Your task to perform on an android device: Show the shopping cart on amazon. Search for logitech g903 on amazon, select the first entry, and add it to the cart. Image 0: 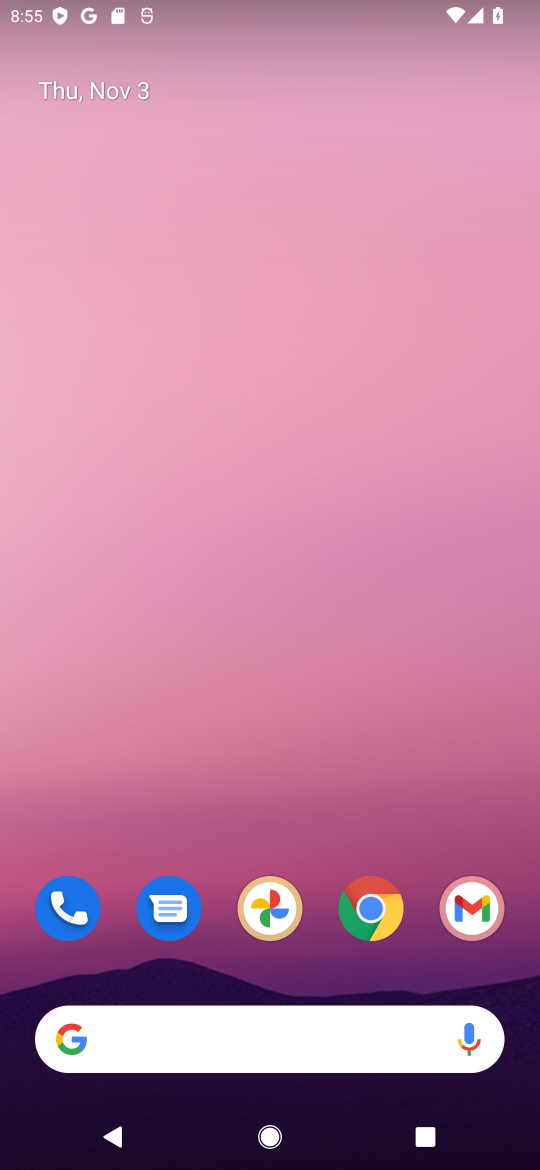
Step 0: click (360, 902)
Your task to perform on an android device: Show the shopping cart on amazon. Search for logitech g903 on amazon, select the first entry, and add it to the cart. Image 1: 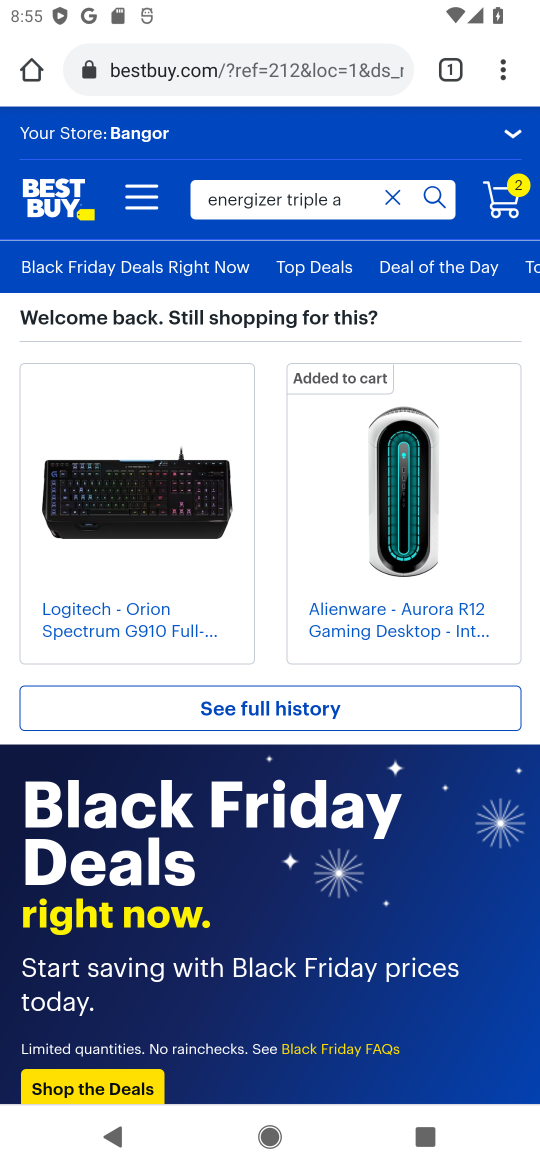
Step 1: click (282, 60)
Your task to perform on an android device: Show the shopping cart on amazon. Search for logitech g903 on amazon, select the first entry, and add it to the cart. Image 2: 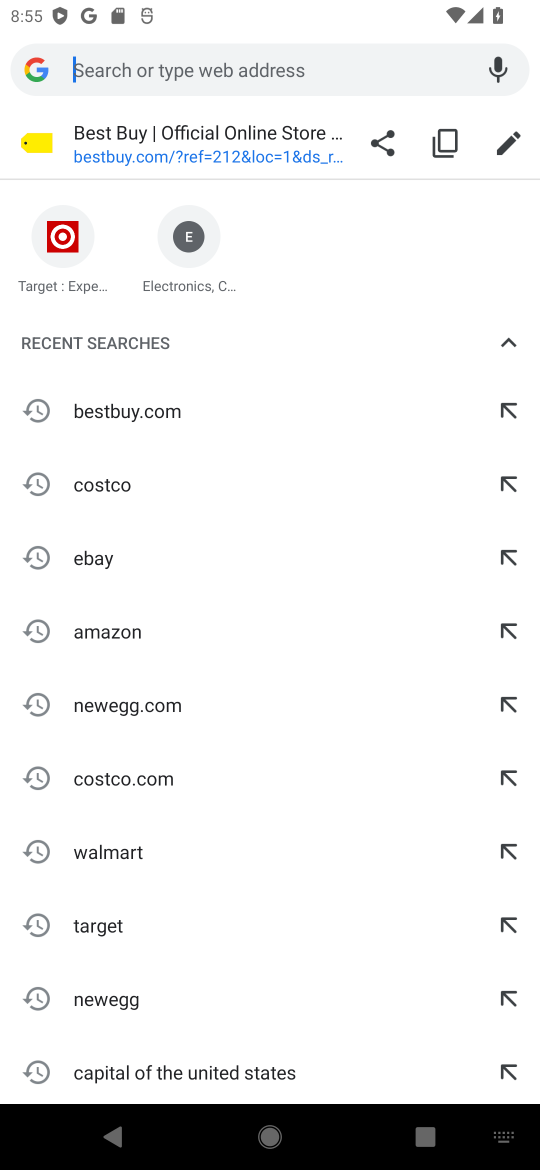
Step 2: click (136, 635)
Your task to perform on an android device: Show the shopping cart on amazon. Search for logitech g903 on amazon, select the first entry, and add it to the cart. Image 3: 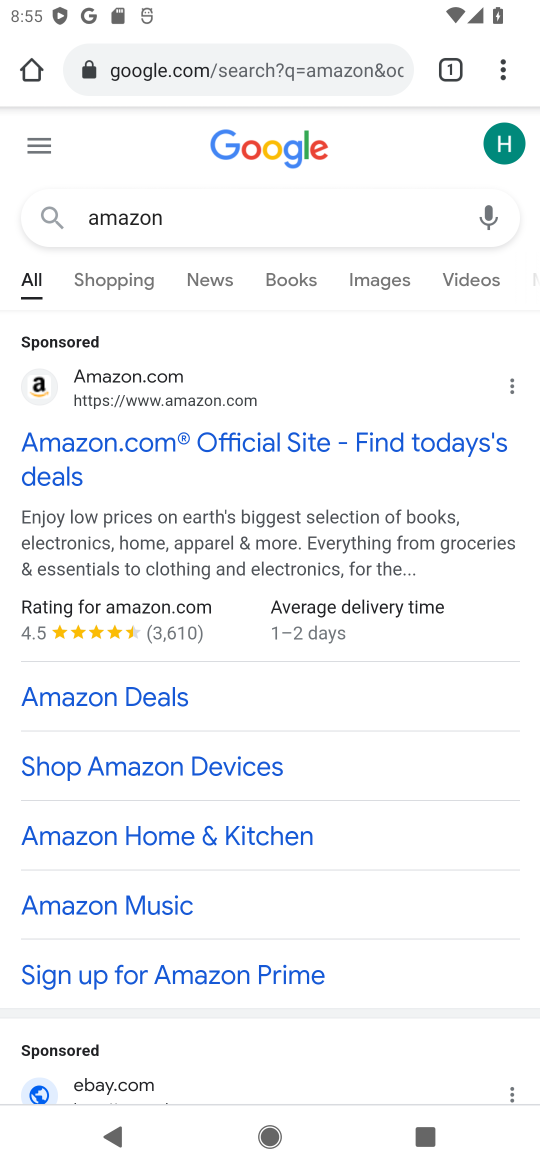
Step 3: click (115, 380)
Your task to perform on an android device: Show the shopping cart on amazon. Search for logitech g903 on amazon, select the first entry, and add it to the cart. Image 4: 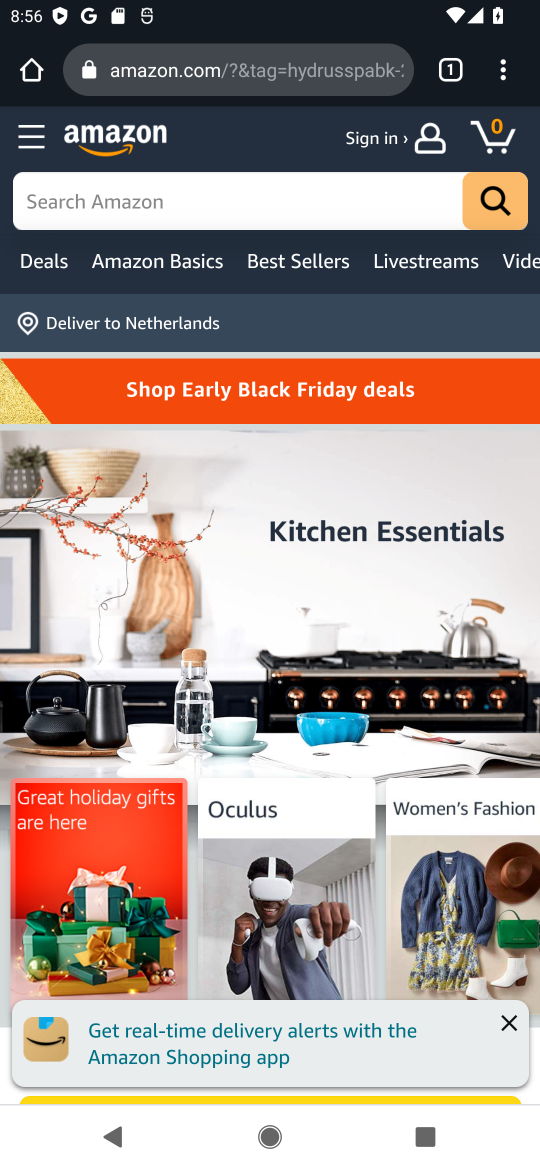
Step 4: click (495, 131)
Your task to perform on an android device: Show the shopping cart on amazon. Search for logitech g903 on amazon, select the first entry, and add it to the cart. Image 5: 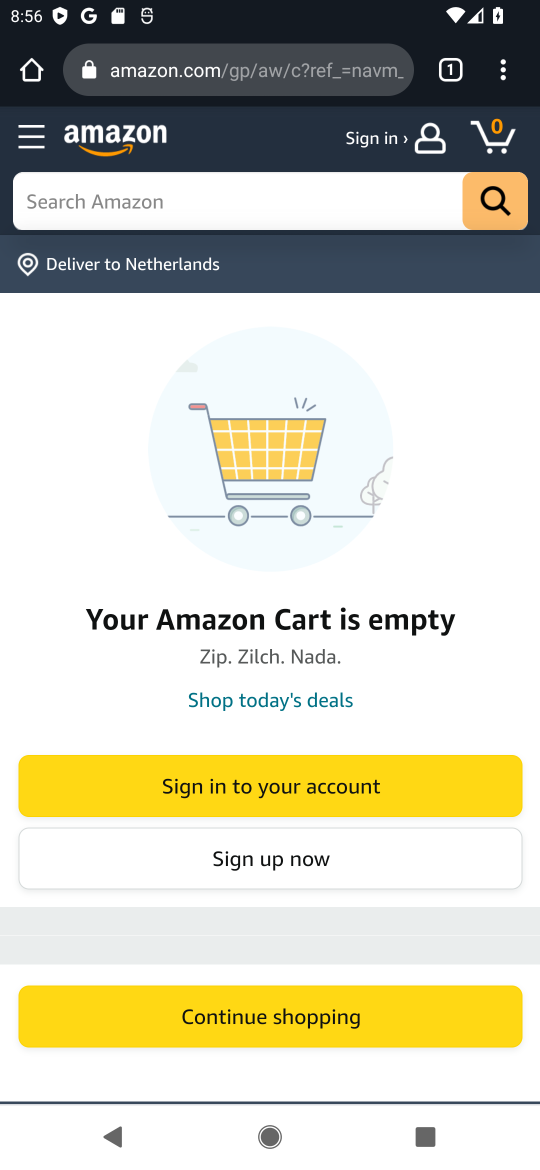
Step 5: click (328, 205)
Your task to perform on an android device: Show the shopping cart on amazon. Search for logitech g903 on amazon, select the first entry, and add it to the cart. Image 6: 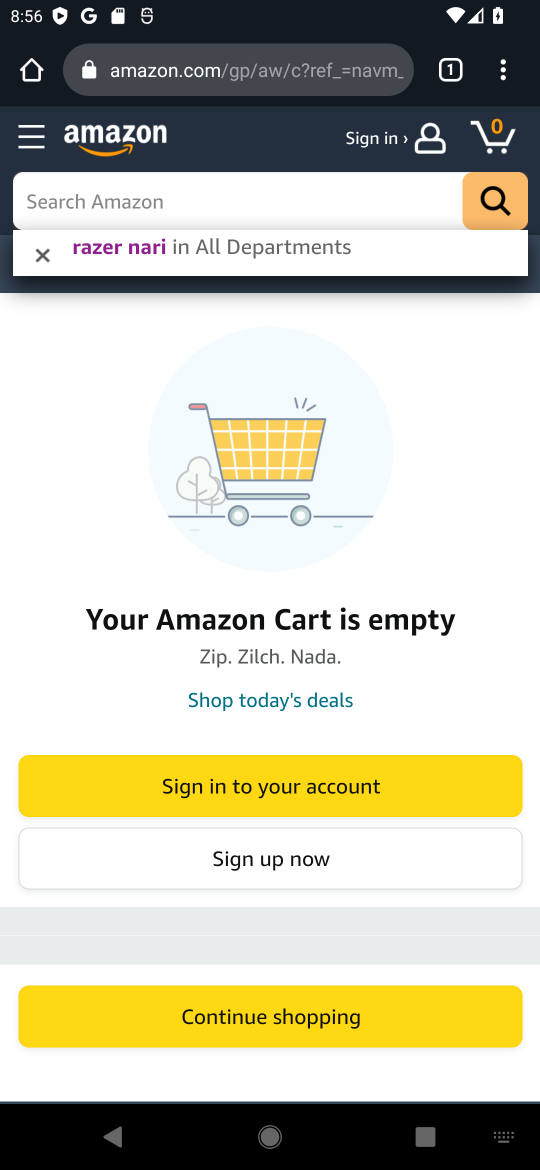
Step 6: type "logitech g903"
Your task to perform on an android device: Show the shopping cart on amazon. Search for logitech g903 on amazon, select the first entry, and add it to the cart. Image 7: 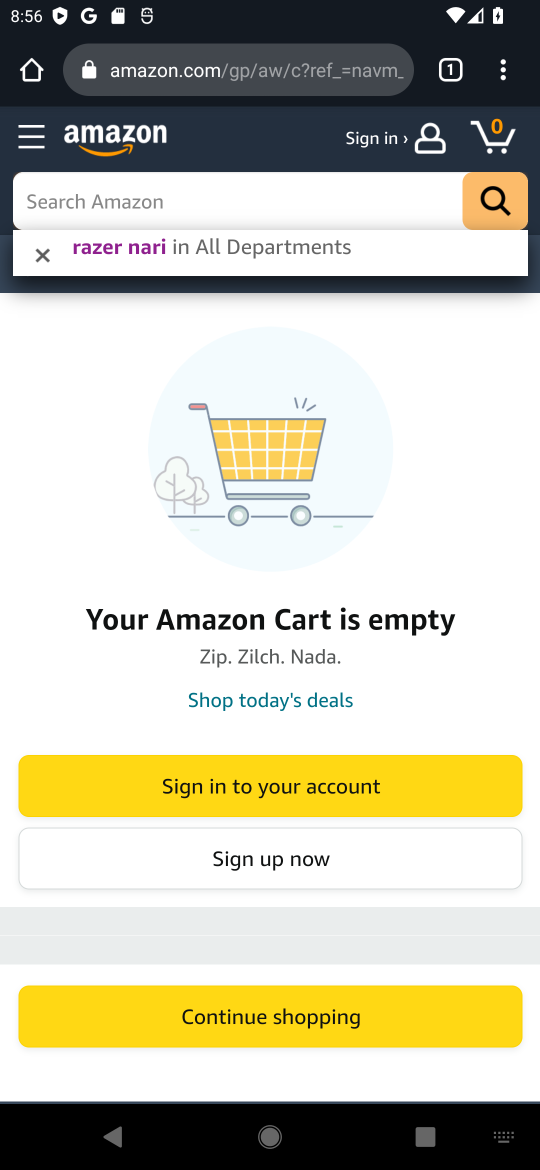
Step 7: press enter
Your task to perform on an android device: Show the shopping cart on amazon. Search for logitech g903 on amazon, select the first entry, and add it to the cart. Image 8: 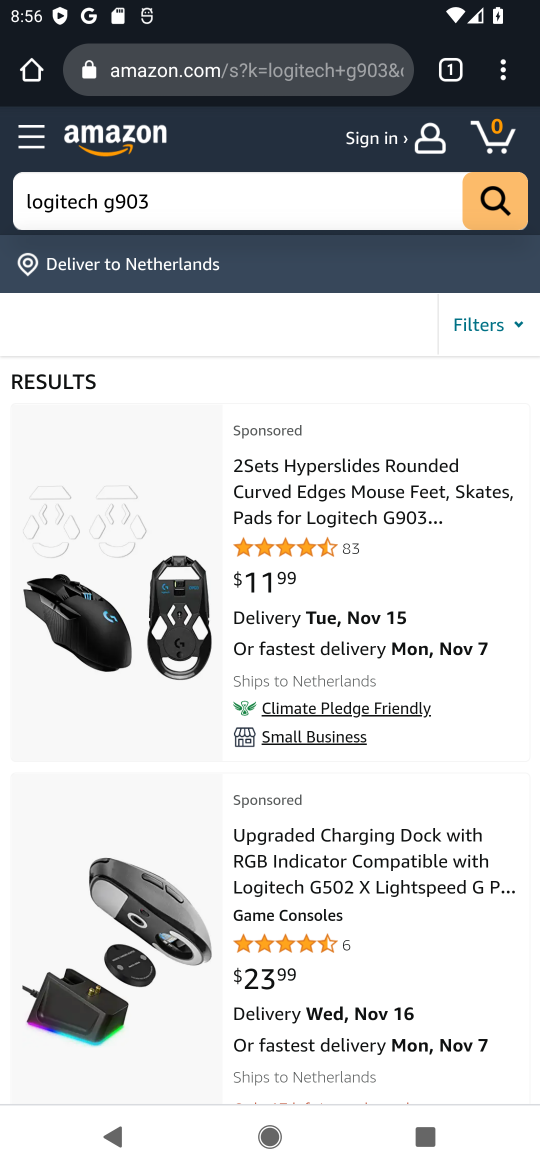
Step 8: click (360, 479)
Your task to perform on an android device: Show the shopping cart on amazon. Search for logitech g903 on amazon, select the first entry, and add it to the cart. Image 9: 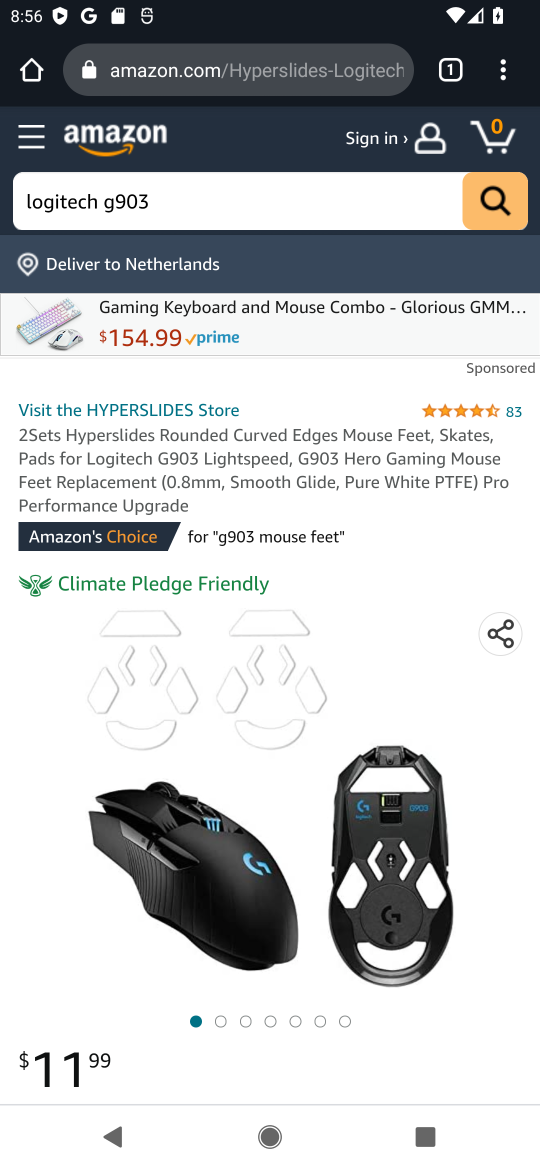
Step 9: drag from (476, 849) to (464, 367)
Your task to perform on an android device: Show the shopping cart on amazon. Search for logitech g903 on amazon, select the first entry, and add it to the cart. Image 10: 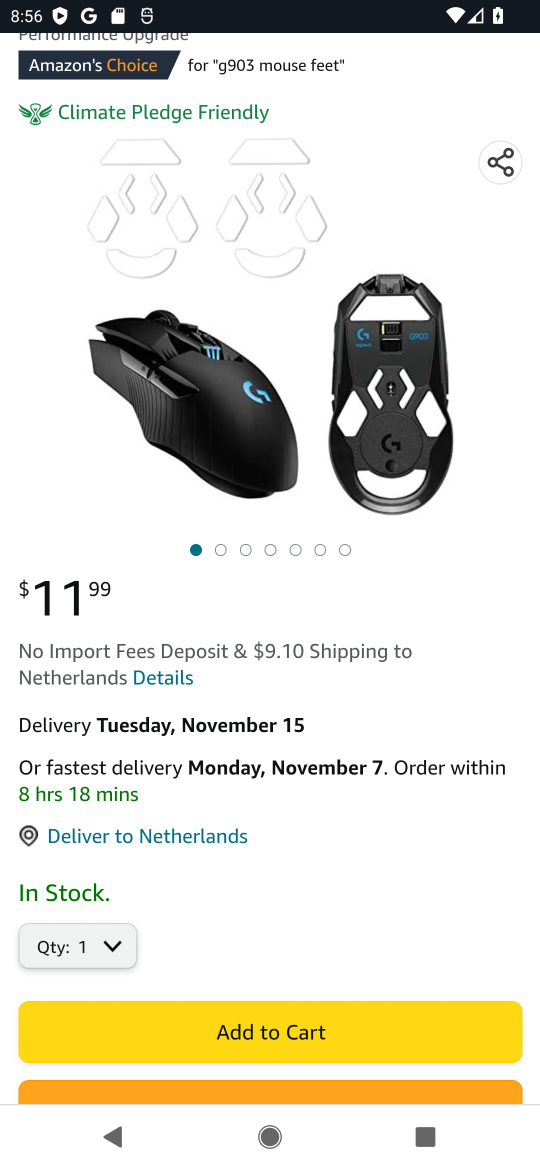
Step 10: click (342, 1039)
Your task to perform on an android device: Show the shopping cart on amazon. Search for logitech g903 on amazon, select the first entry, and add it to the cart. Image 11: 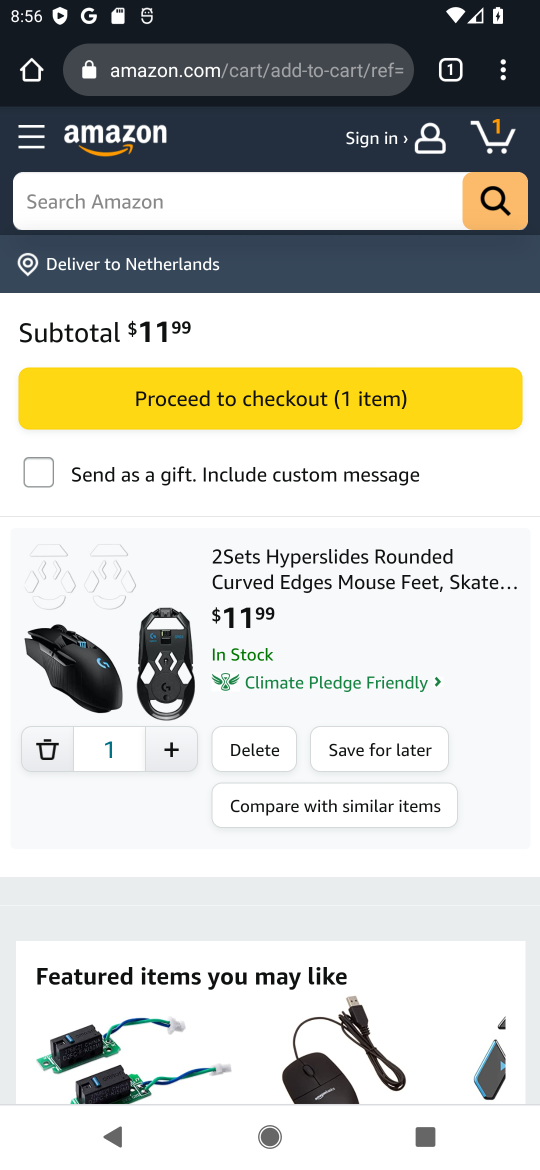
Step 11: task complete